Your task to perform on an android device: change the clock display to show seconds Image 0: 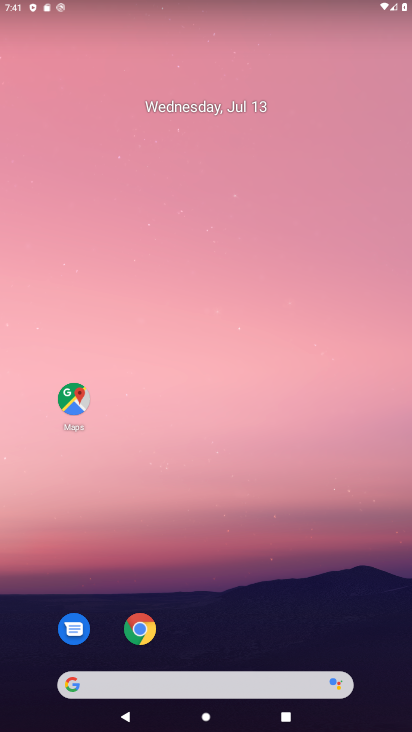
Step 0: drag from (130, 462) to (261, 51)
Your task to perform on an android device: change the clock display to show seconds Image 1: 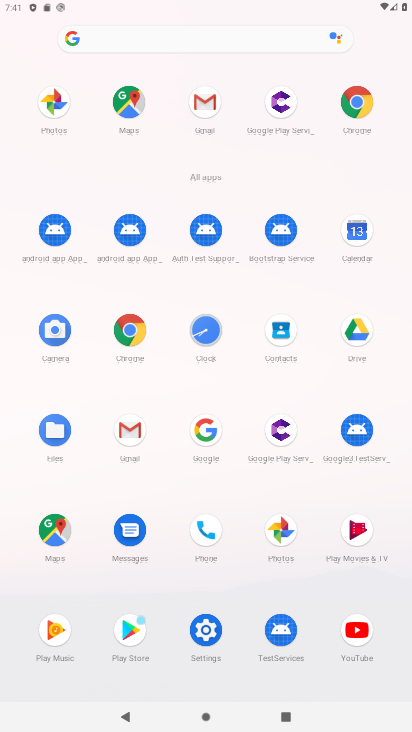
Step 1: click (210, 332)
Your task to perform on an android device: change the clock display to show seconds Image 2: 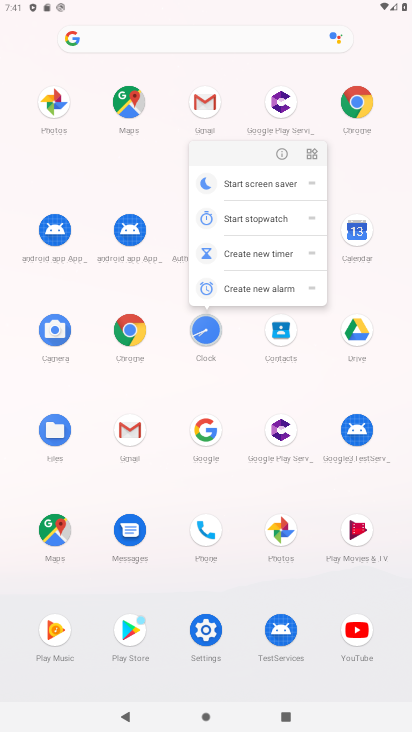
Step 2: click (210, 334)
Your task to perform on an android device: change the clock display to show seconds Image 3: 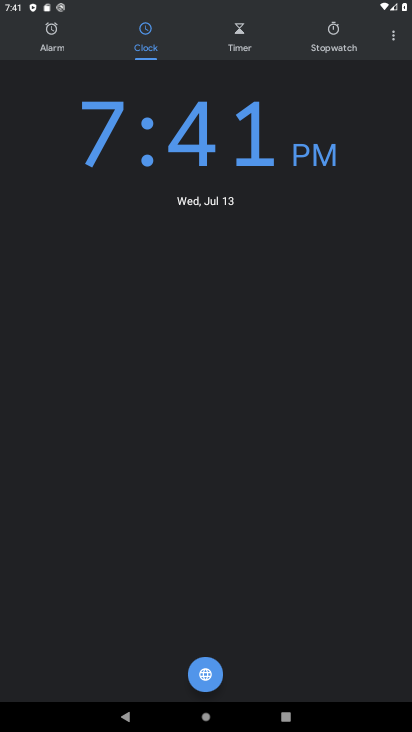
Step 3: click (393, 41)
Your task to perform on an android device: change the clock display to show seconds Image 4: 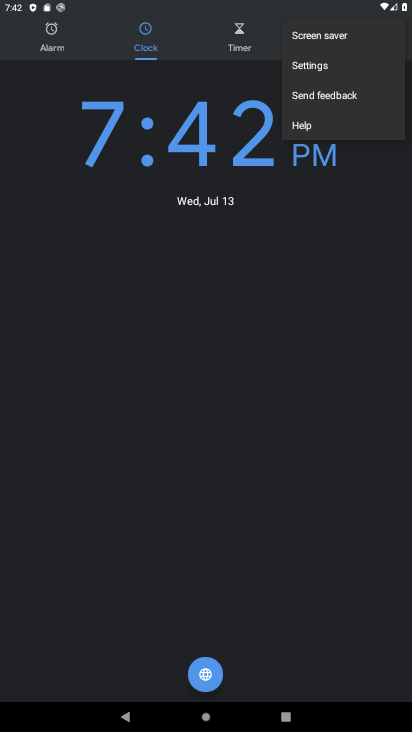
Step 4: click (308, 66)
Your task to perform on an android device: change the clock display to show seconds Image 5: 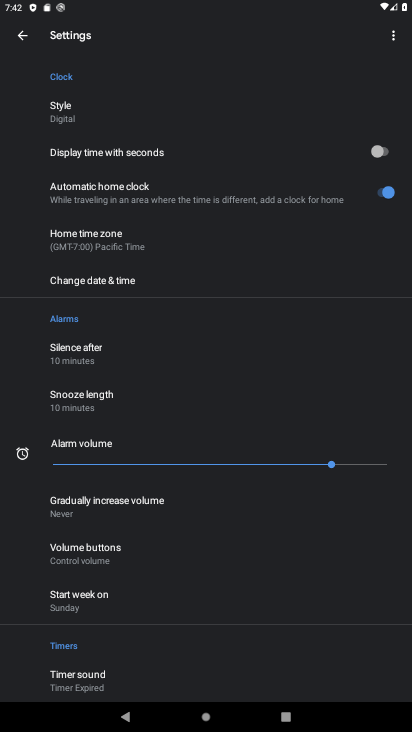
Step 5: drag from (196, 621) to (262, 181)
Your task to perform on an android device: change the clock display to show seconds Image 6: 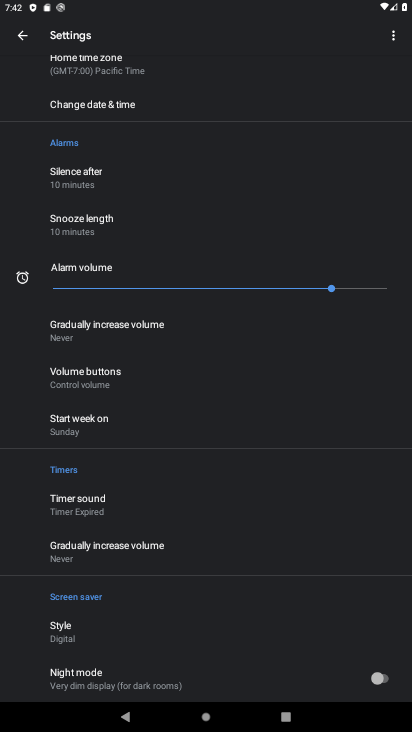
Step 6: drag from (198, 618) to (250, 277)
Your task to perform on an android device: change the clock display to show seconds Image 7: 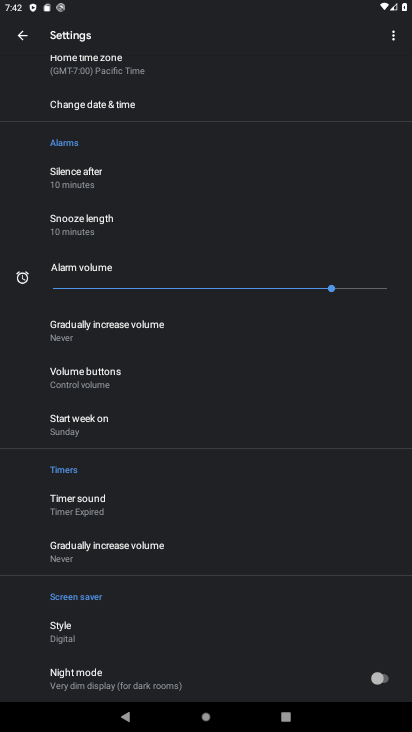
Step 7: drag from (214, 646) to (302, 71)
Your task to perform on an android device: change the clock display to show seconds Image 8: 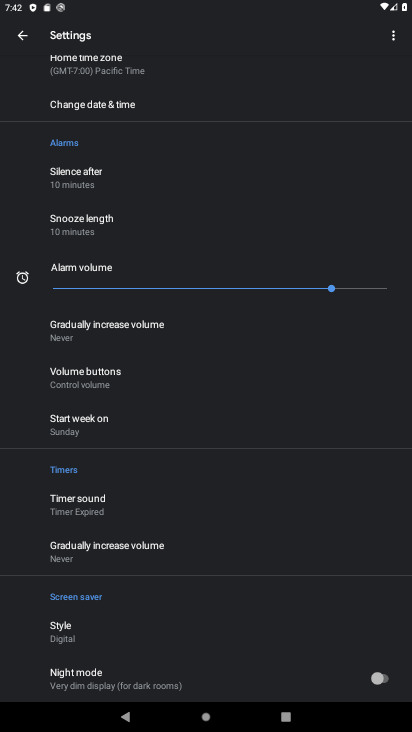
Step 8: drag from (237, 176) to (239, 645)
Your task to perform on an android device: change the clock display to show seconds Image 9: 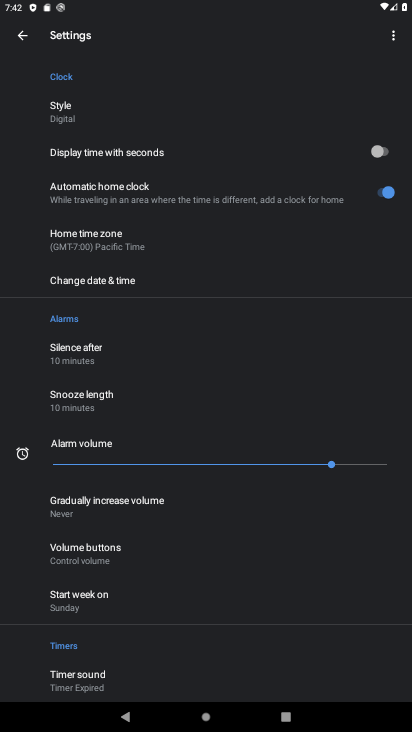
Step 9: click (124, 283)
Your task to perform on an android device: change the clock display to show seconds Image 10: 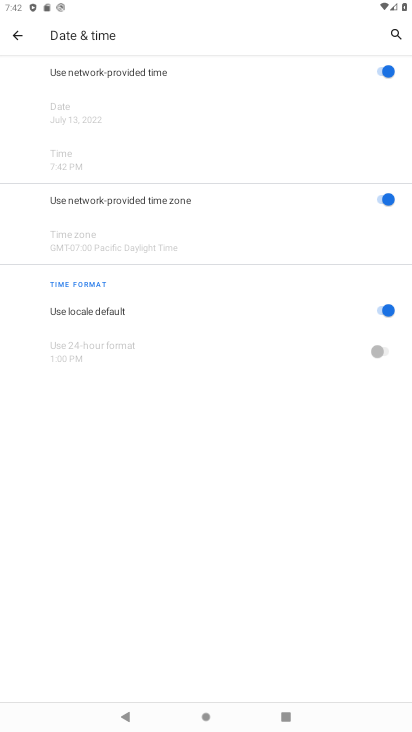
Step 10: click (384, 315)
Your task to perform on an android device: change the clock display to show seconds Image 11: 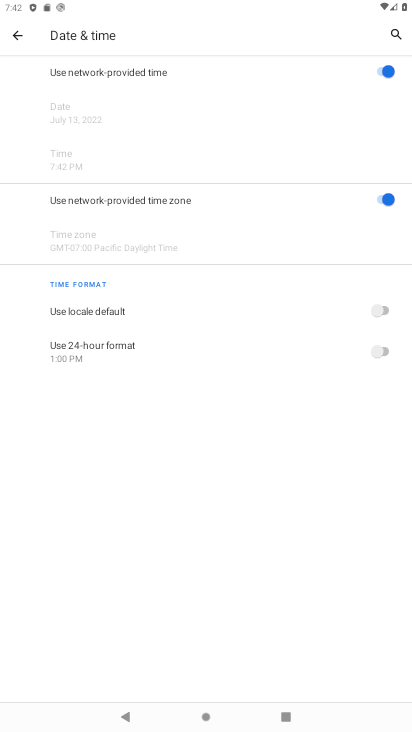
Step 11: click (381, 361)
Your task to perform on an android device: change the clock display to show seconds Image 12: 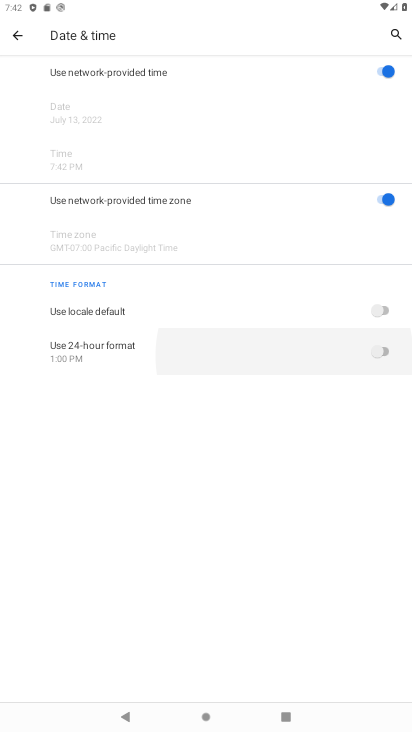
Step 12: click (381, 352)
Your task to perform on an android device: change the clock display to show seconds Image 13: 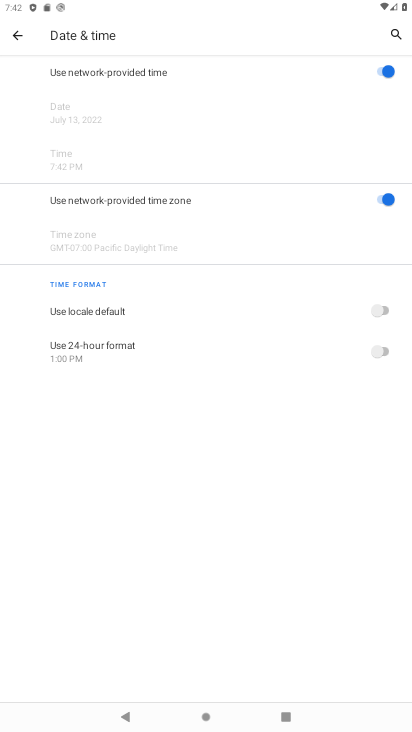
Step 13: task complete